Your task to perform on an android device: see sites visited before in the chrome app Image 0: 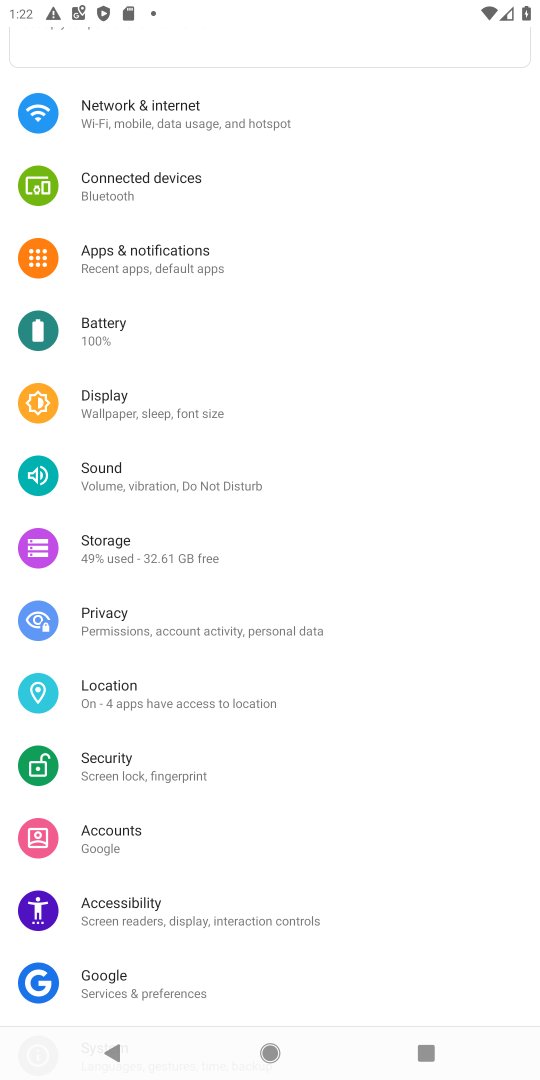
Step 0: press home button
Your task to perform on an android device: see sites visited before in the chrome app Image 1: 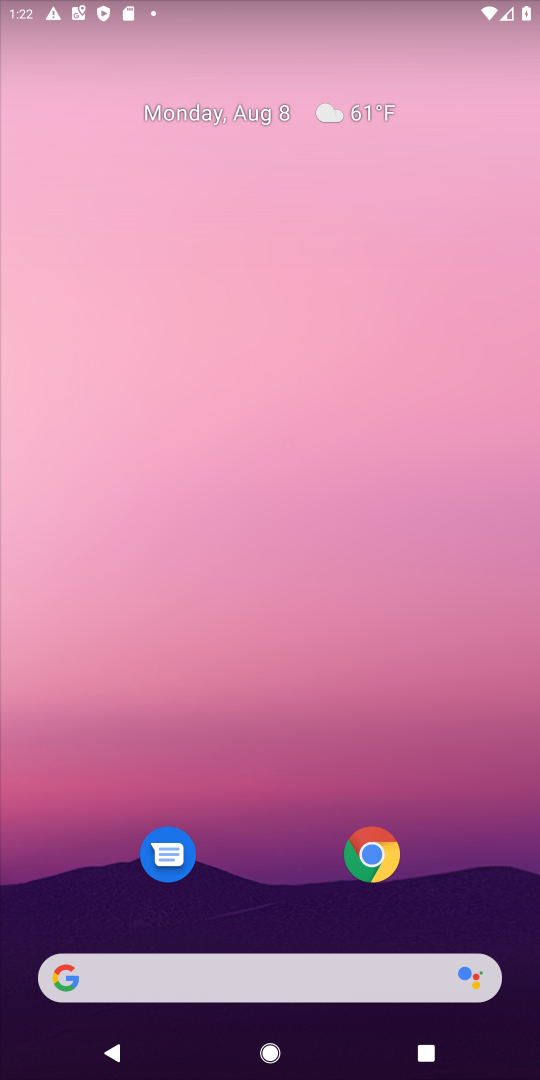
Step 1: click (362, 833)
Your task to perform on an android device: see sites visited before in the chrome app Image 2: 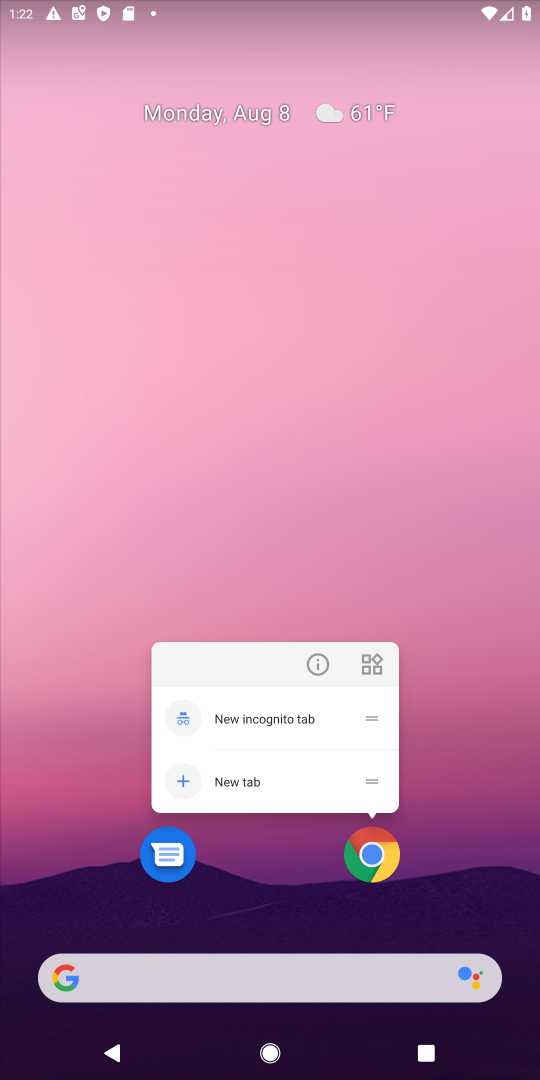
Step 2: click (367, 861)
Your task to perform on an android device: see sites visited before in the chrome app Image 3: 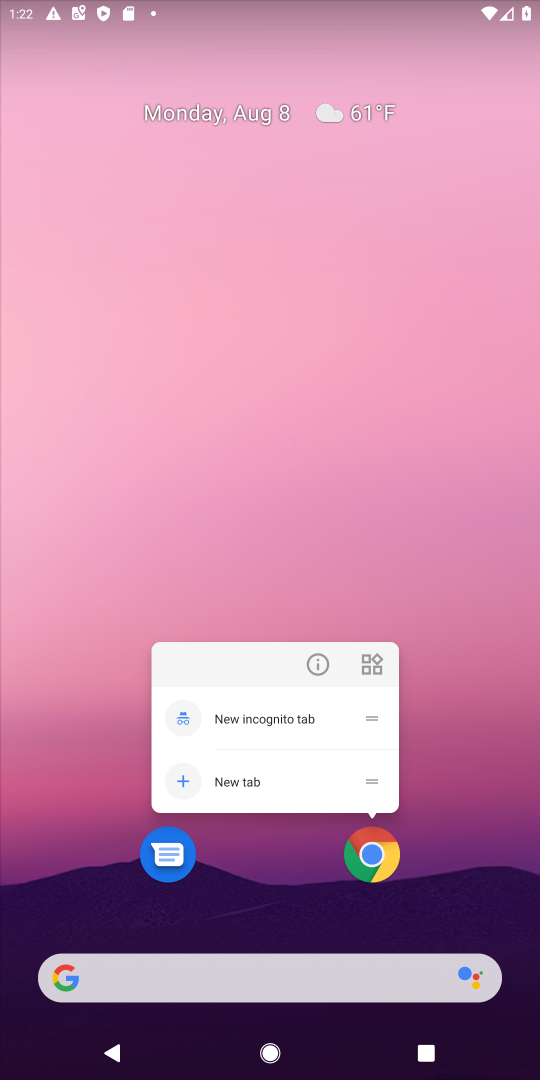
Step 3: click (367, 861)
Your task to perform on an android device: see sites visited before in the chrome app Image 4: 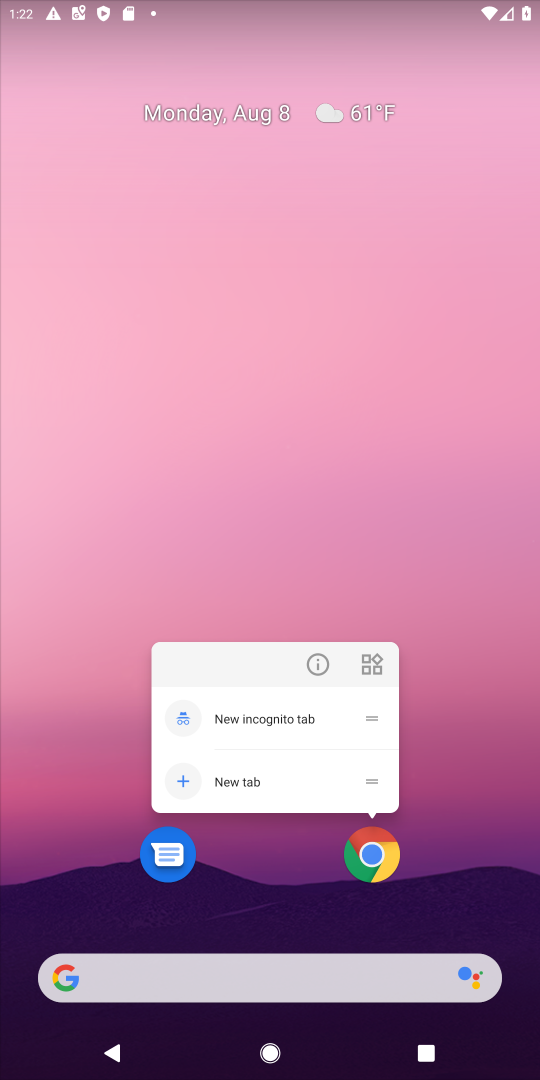
Step 4: click (371, 847)
Your task to perform on an android device: see sites visited before in the chrome app Image 5: 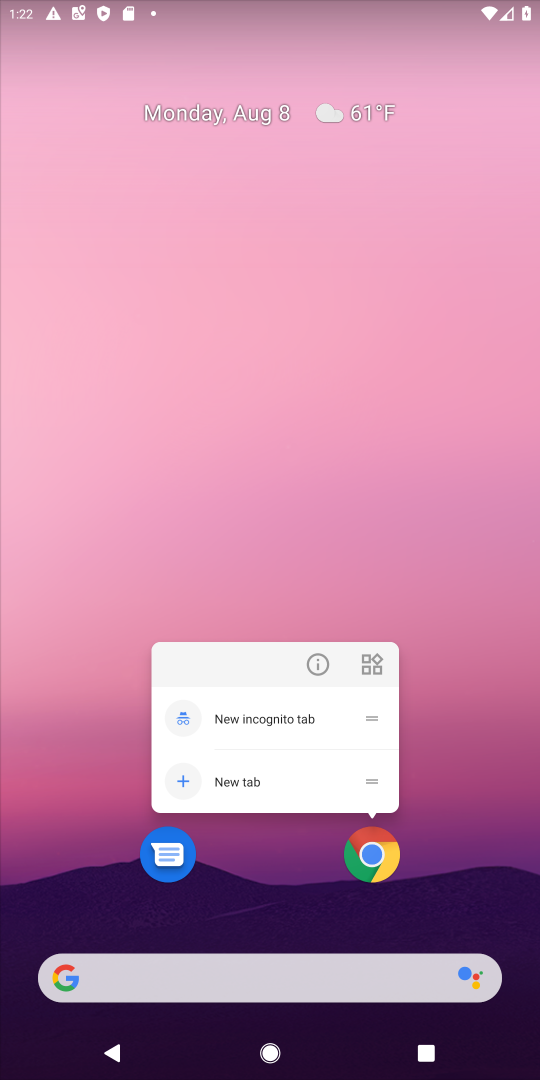
Step 5: click (371, 847)
Your task to perform on an android device: see sites visited before in the chrome app Image 6: 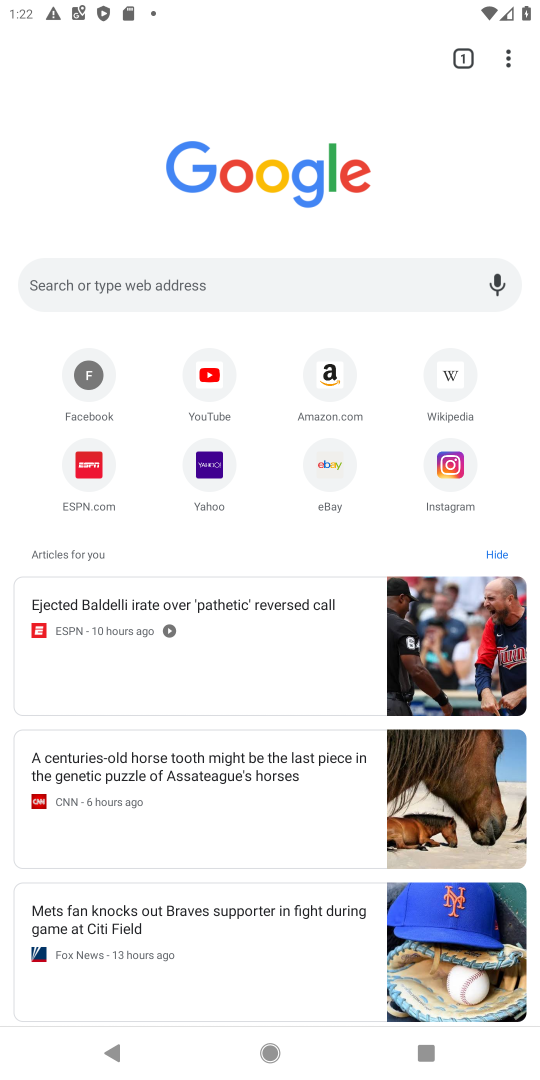
Step 6: click (511, 61)
Your task to perform on an android device: see sites visited before in the chrome app Image 7: 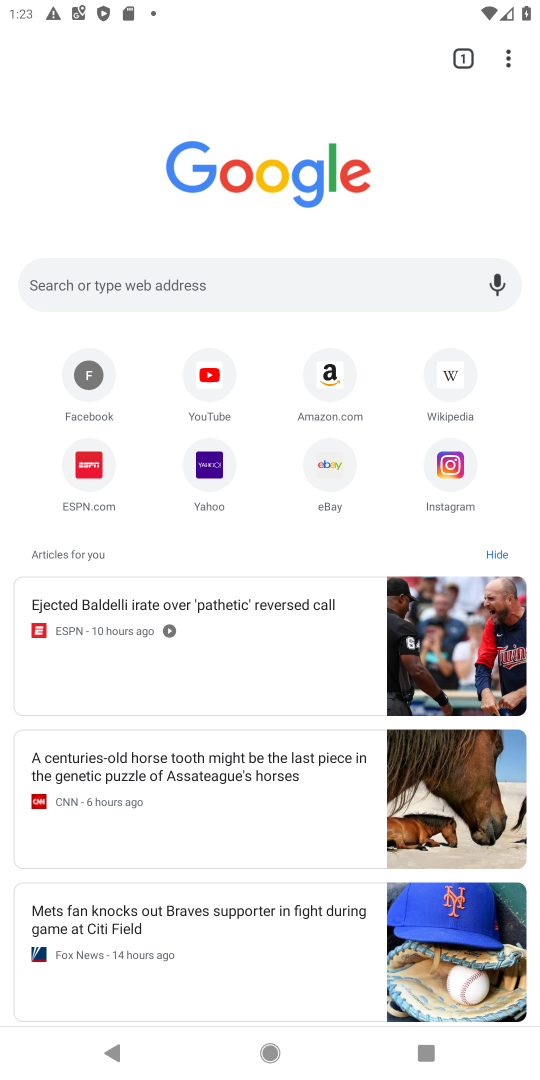
Step 7: click (513, 57)
Your task to perform on an android device: see sites visited before in the chrome app Image 8: 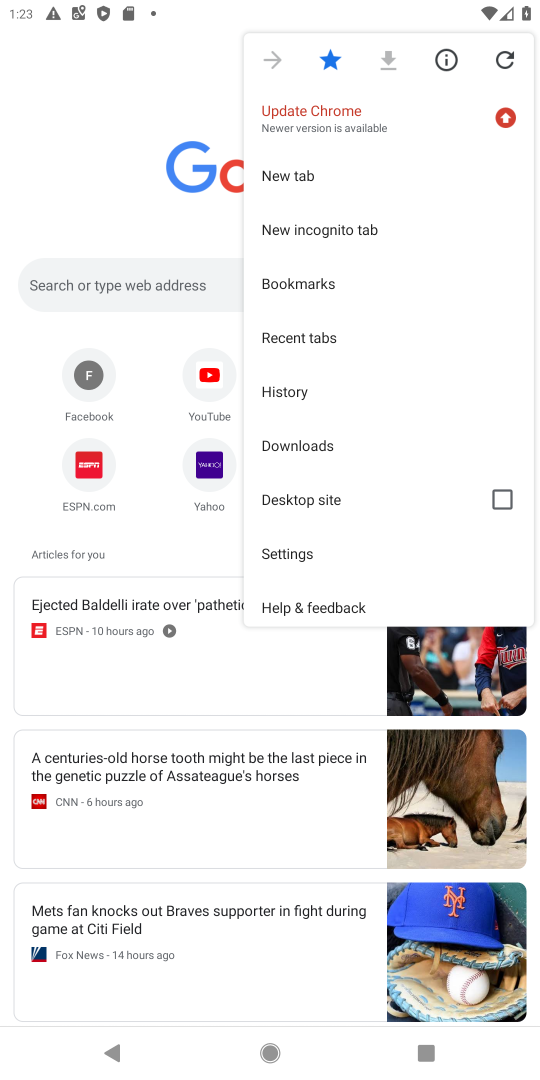
Step 8: click (293, 551)
Your task to perform on an android device: see sites visited before in the chrome app Image 9: 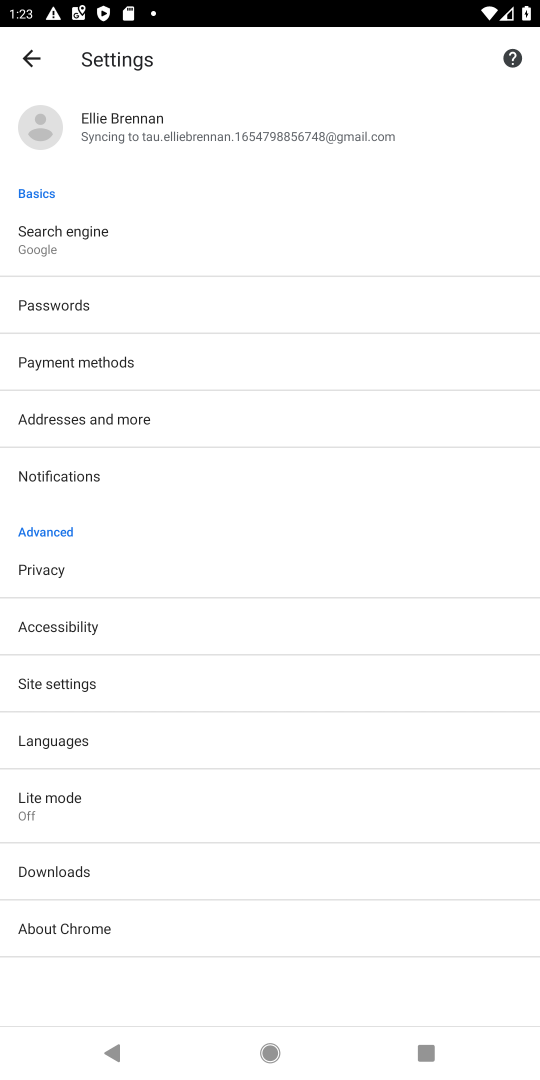
Step 9: click (59, 683)
Your task to perform on an android device: see sites visited before in the chrome app Image 10: 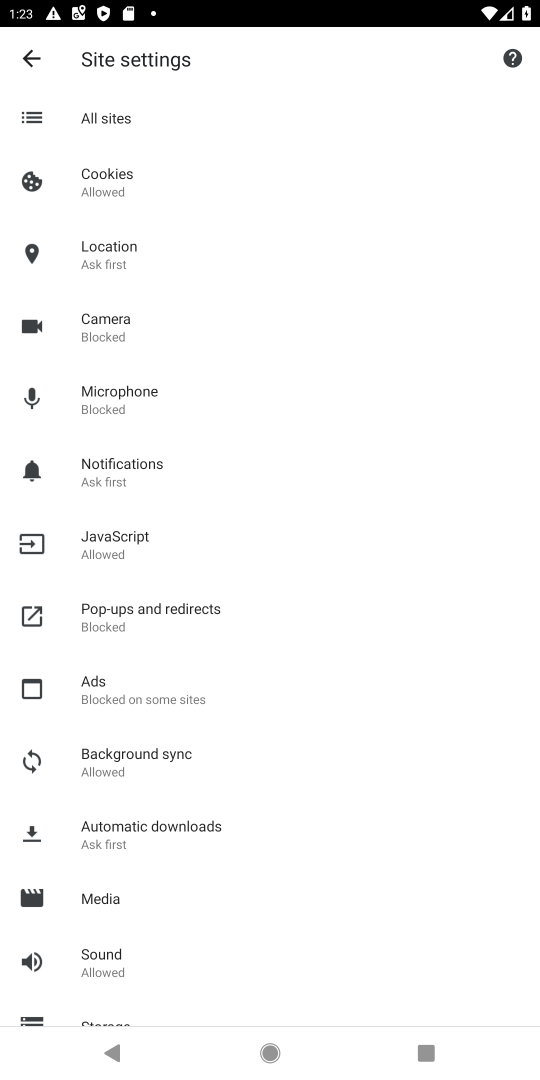
Step 10: task complete